Your task to perform on an android device: manage bookmarks in the chrome app Image 0: 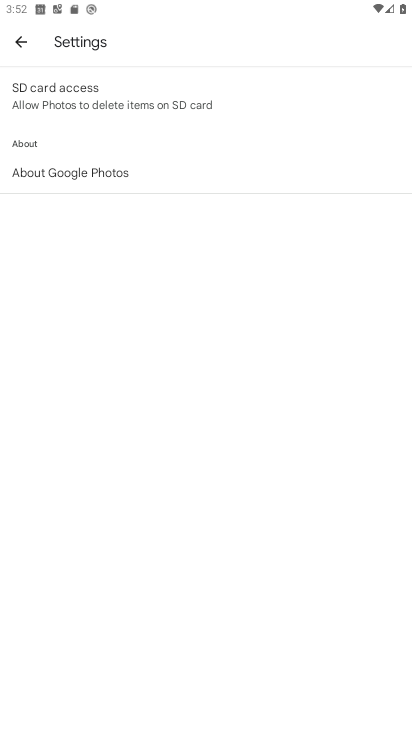
Step 0: press home button
Your task to perform on an android device: manage bookmarks in the chrome app Image 1: 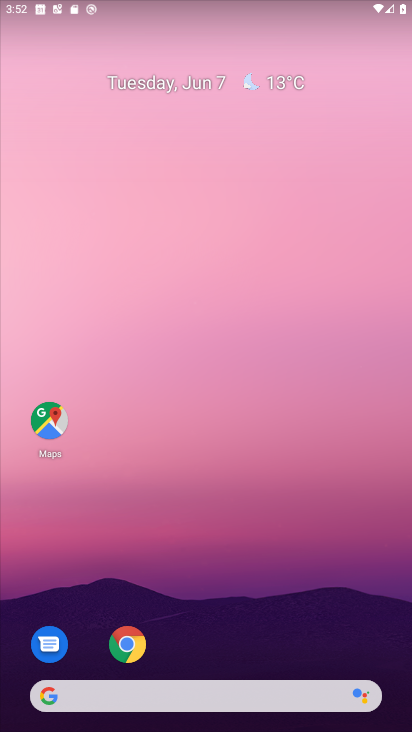
Step 1: drag from (334, 592) to (323, 195)
Your task to perform on an android device: manage bookmarks in the chrome app Image 2: 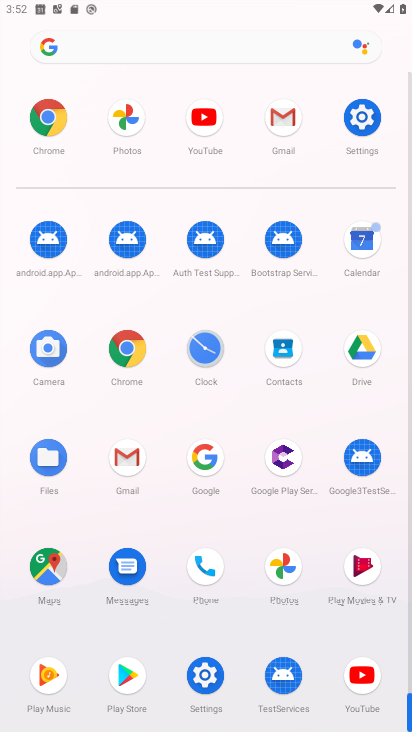
Step 2: click (123, 355)
Your task to perform on an android device: manage bookmarks in the chrome app Image 3: 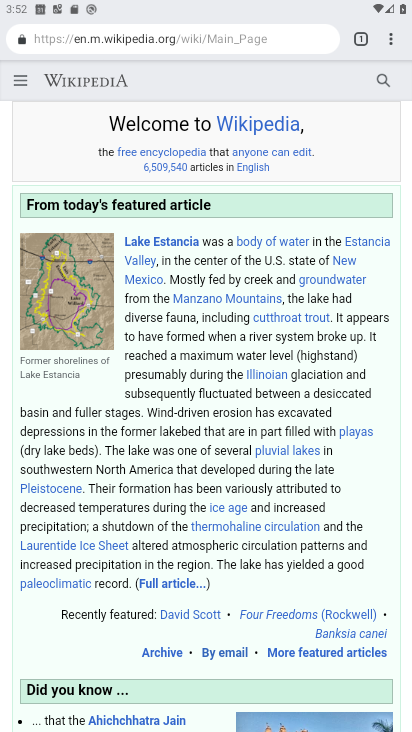
Step 3: click (390, 46)
Your task to perform on an android device: manage bookmarks in the chrome app Image 4: 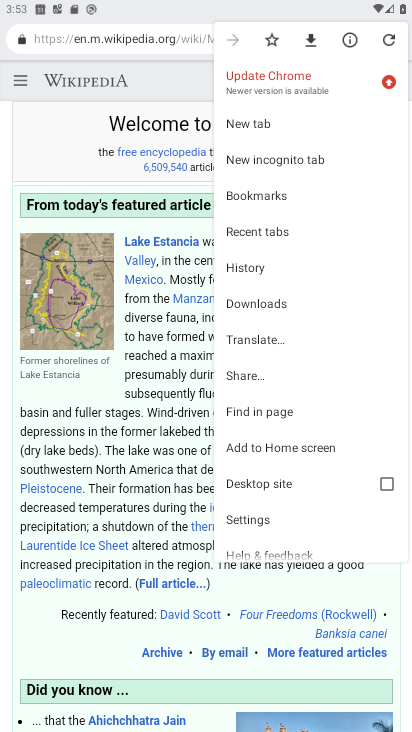
Step 4: click (313, 198)
Your task to perform on an android device: manage bookmarks in the chrome app Image 5: 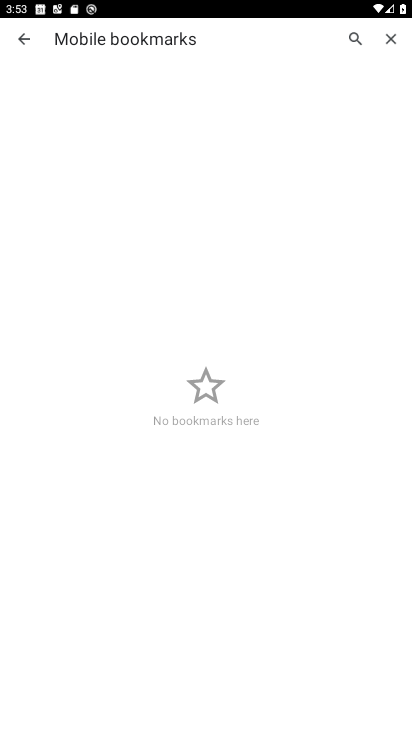
Step 5: task complete